Your task to perform on an android device: Is it going to rain this weekend? Image 0: 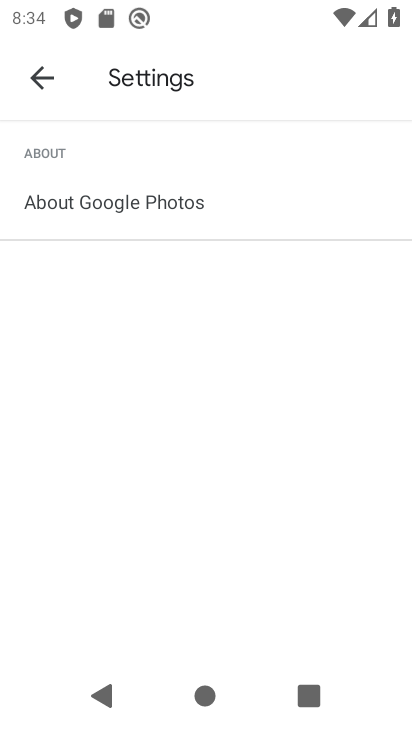
Step 0: press home button
Your task to perform on an android device: Is it going to rain this weekend? Image 1: 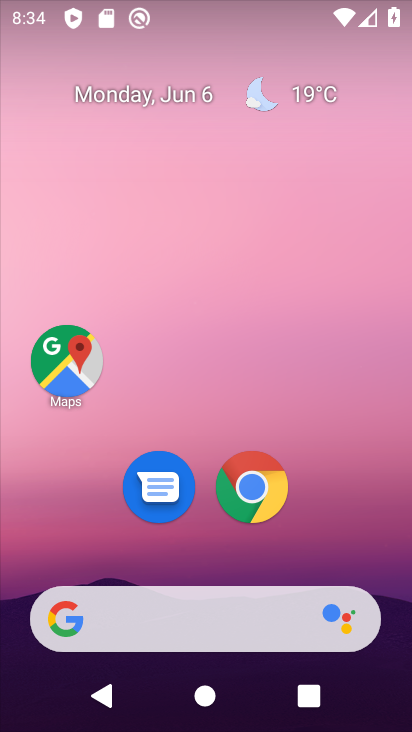
Step 1: click (311, 88)
Your task to perform on an android device: Is it going to rain this weekend? Image 2: 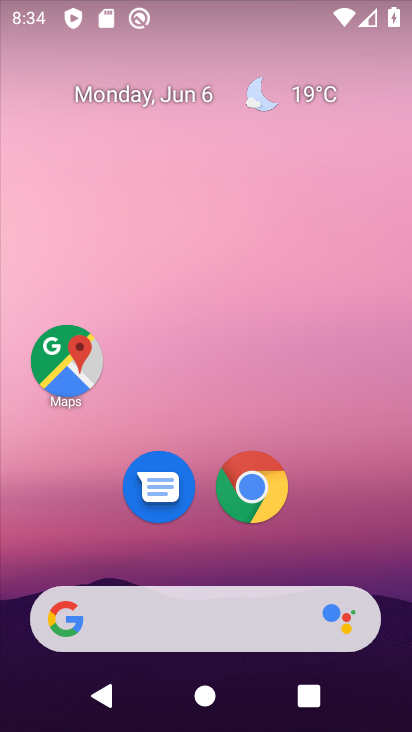
Step 2: click (329, 99)
Your task to perform on an android device: Is it going to rain this weekend? Image 3: 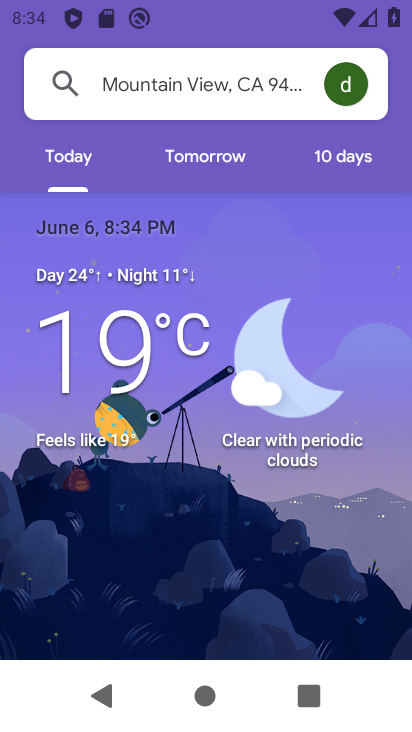
Step 3: drag from (190, 520) to (223, 152)
Your task to perform on an android device: Is it going to rain this weekend? Image 4: 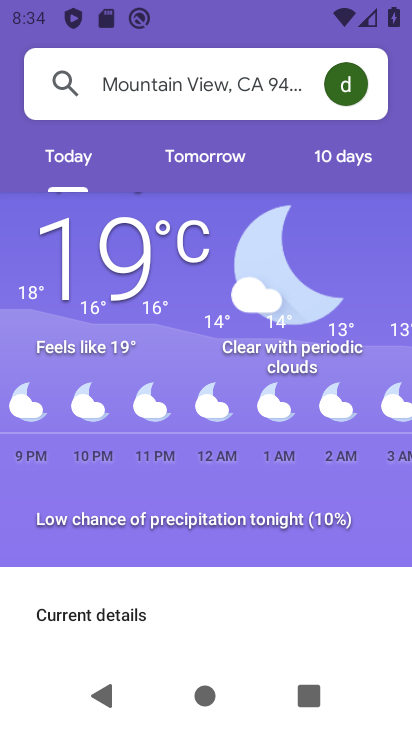
Step 4: click (350, 162)
Your task to perform on an android device: Is it going to rain this weekend? Image 5: 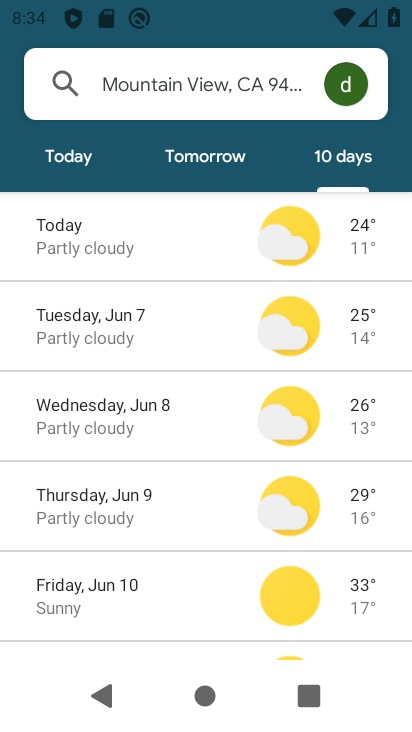
Step 5: task complete